Your task to perform on an android device: toggle sleep mode Image 0: 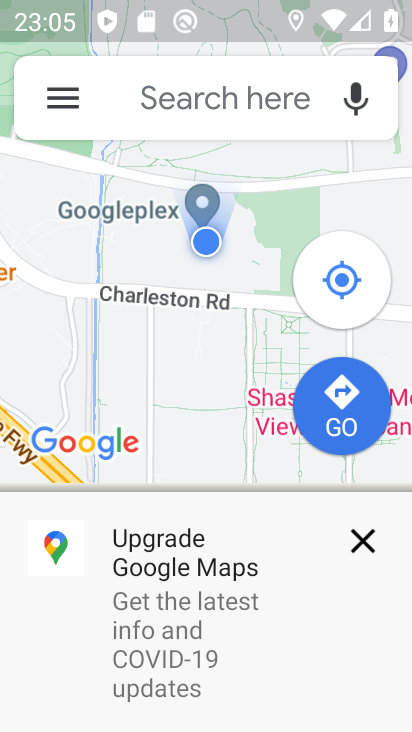
Step 0: press home button
Your task to perform on an android device: toggle sleep mode Image 1: 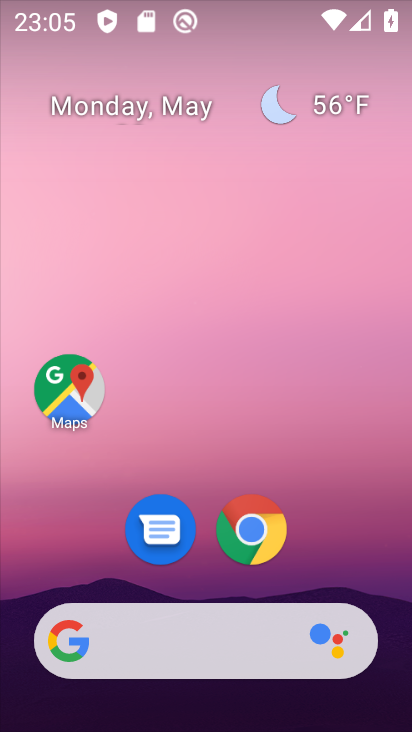
Step 1: drag from (344, 547) to (276, 240)
Your task to perform on an android device: toggle sleep mode Image 2: 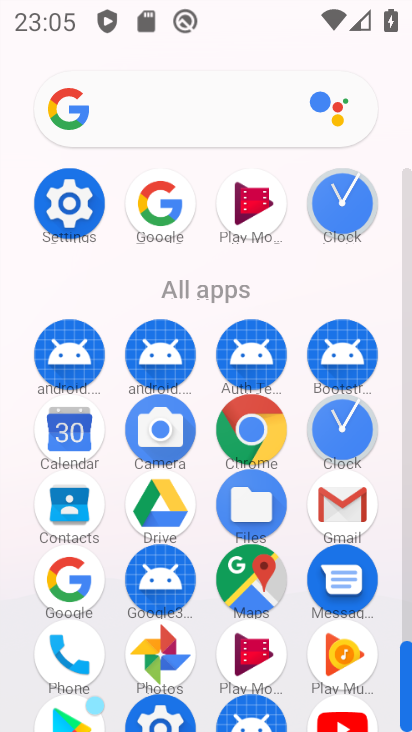
Step 2: click (70, 204)
Your task to perform on an android device: toggle sleep mode Image 3: 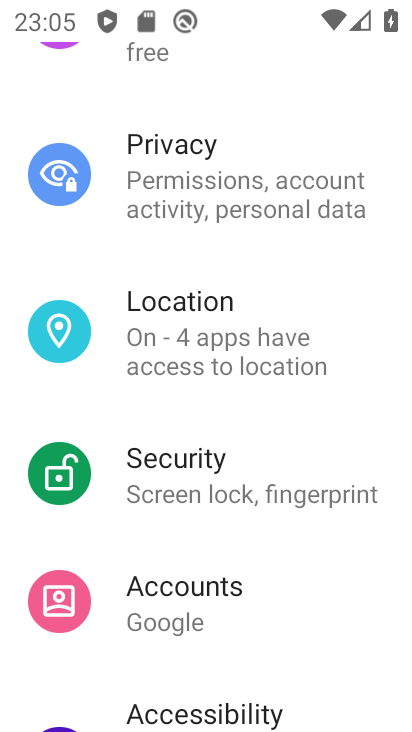
Step 3: drag from (167, 300) to (168, 410)
Your task to perform on an android device: toggle sleep mode Image 4: 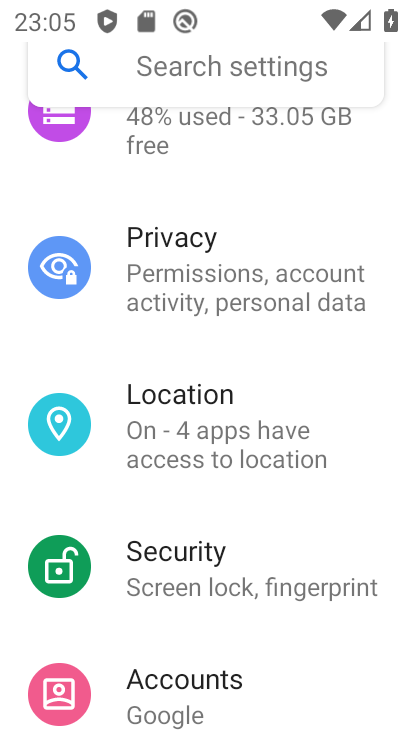
Step 4: drag from (246, 239) to (269, 388)
Your task to perform on an android device: toggle sleep mode Image 5: 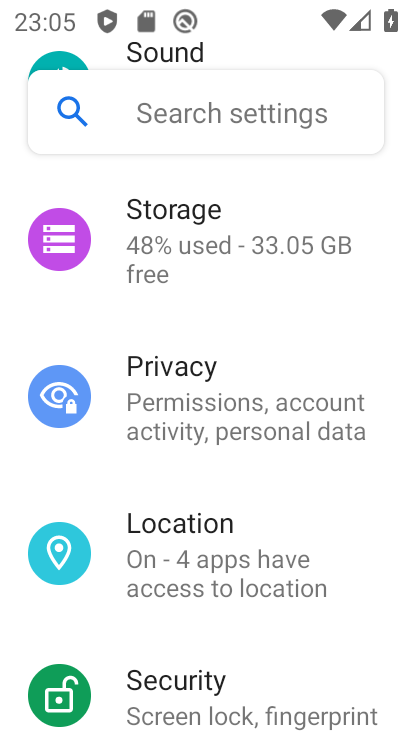
Step 5: drag from (277, 356) to (250, 474)
Your task to perform on an android device: toggle sleep mode Image 6: 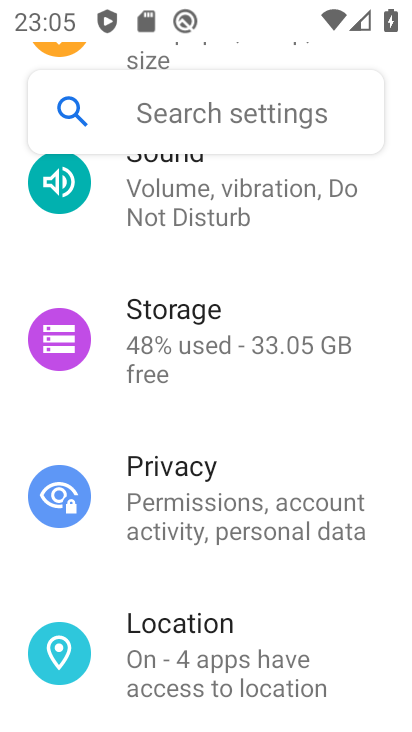
Step 6: drag from (330, 307) to (332, 446)
Your task to perform on an android device: toggle sleep mode Image 7: 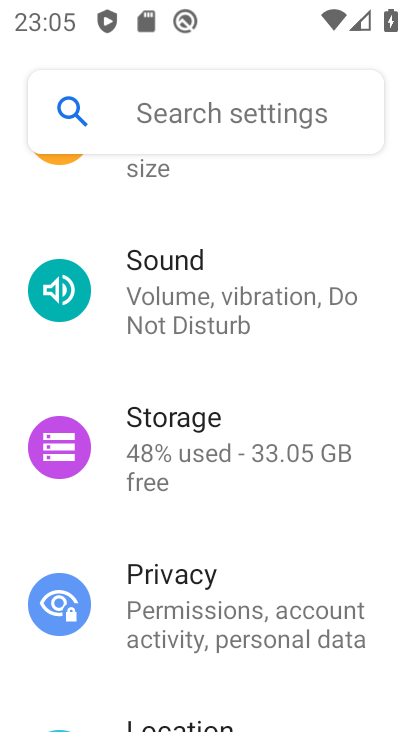
Step 7: drag from (344, 245) to (360, 437)
Your task to perform on an android device: toggle sleep mode Image 8: 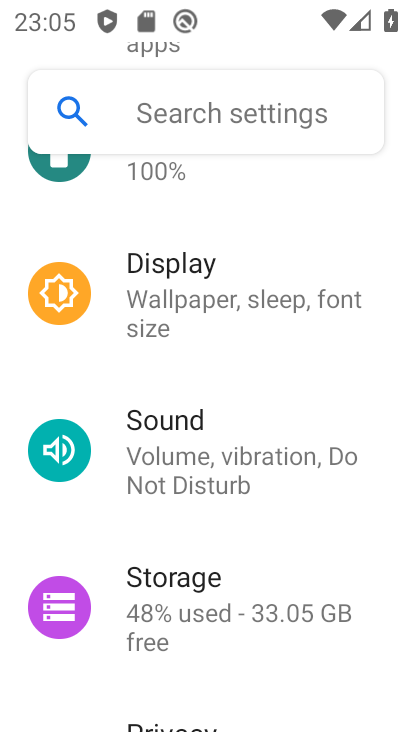
Step 8: click (322, 301)
Your task to perform on an android device: toggle sleep mode Image 9: 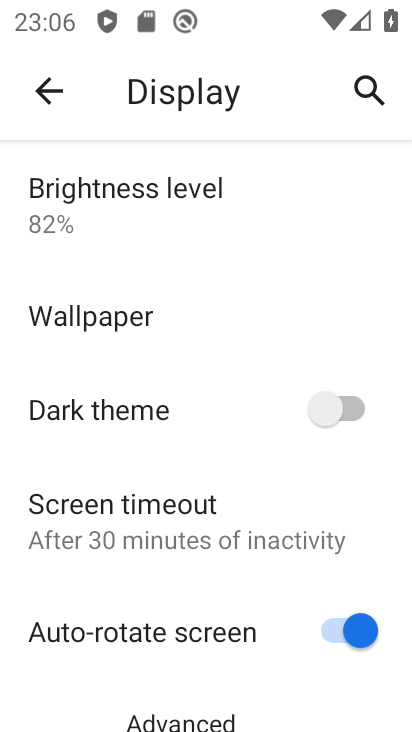
Step 9: drag from (138, 563) to (213, 415)
Your task to perform on an android device: toggle sleep mode Image 10: 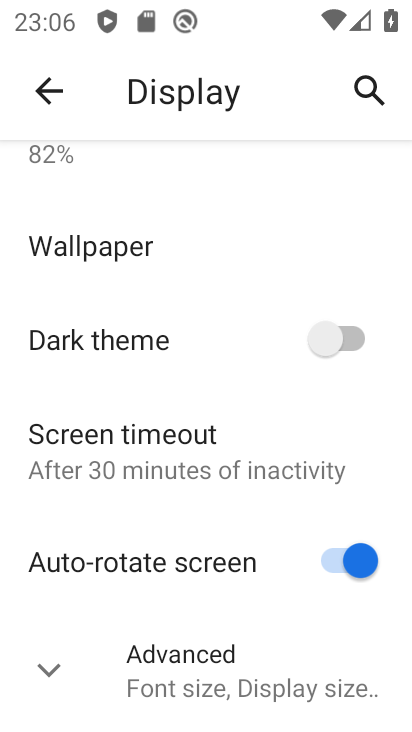
Step 10: click (226, 671)
Your task to perform on an android device: toggle sleep mode Image 11: 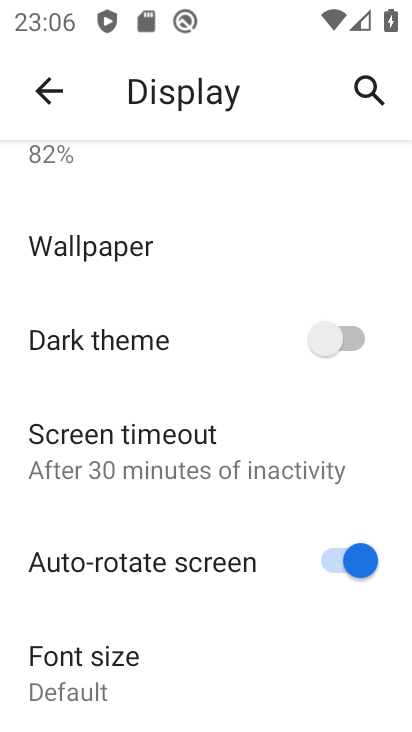
Step 11: task complete